Your task to perform on an android device: set the stopwatch Image 0: 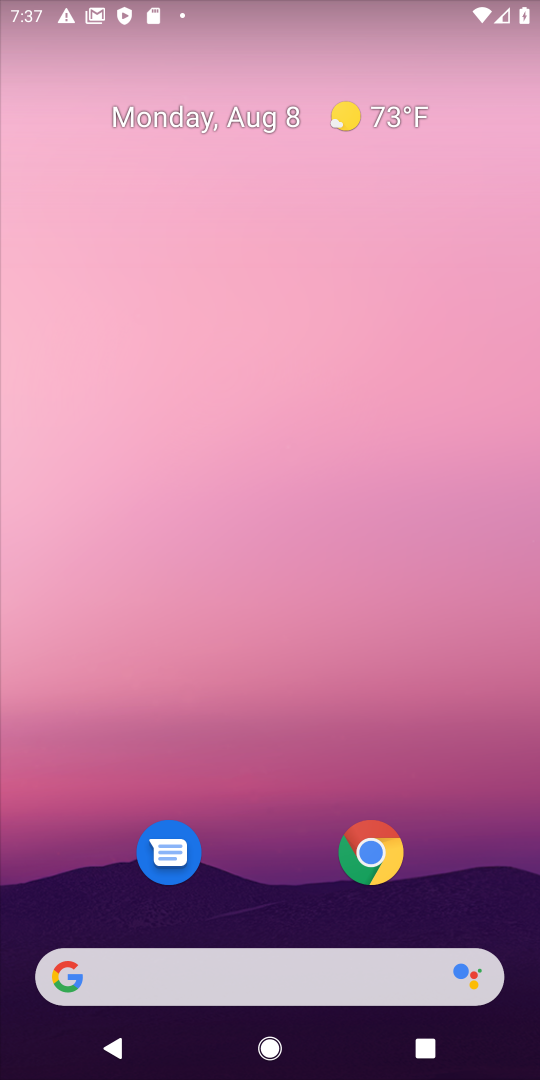
Step 0: drag from (126, 674) to (277, 214)
Your task to perform on an android device: set the stopwatch Image 1: 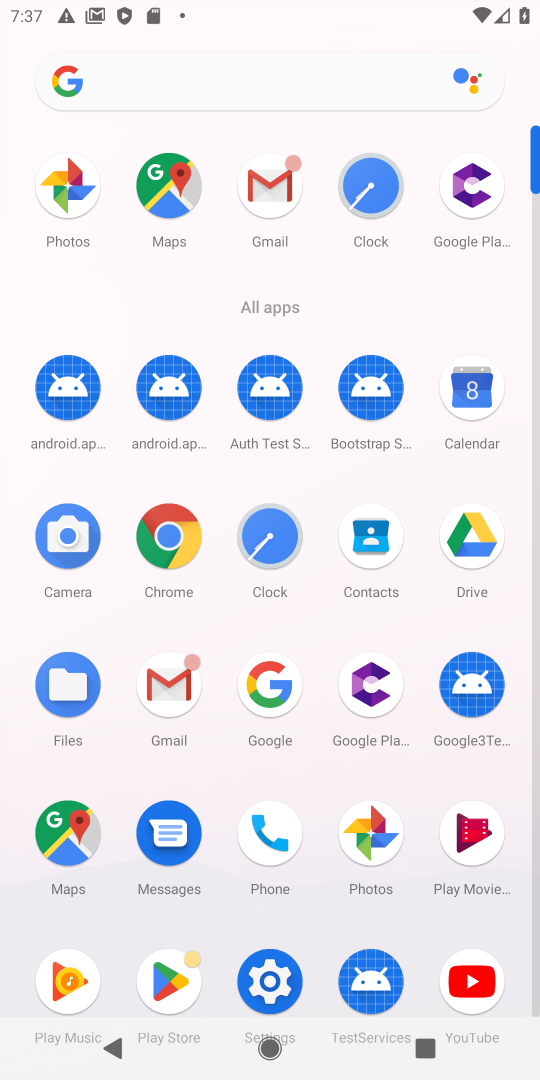
Step 1: click (357, 188)
Your task to perform on an android device: set the stopwatch Image 2: 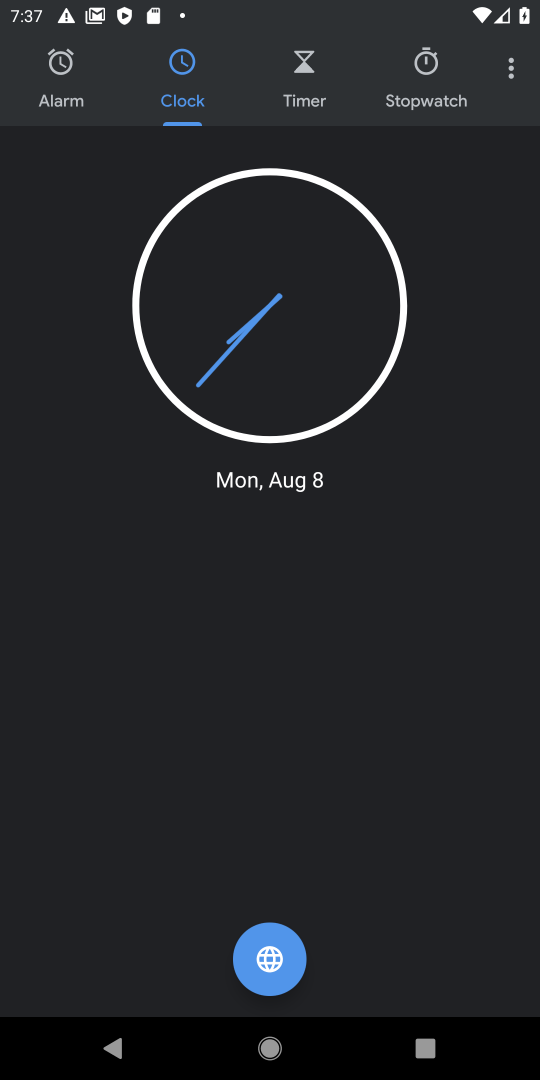
Step 2: click (399, 85)
Your task to perform on an android device: set the stopwatch Image 3: 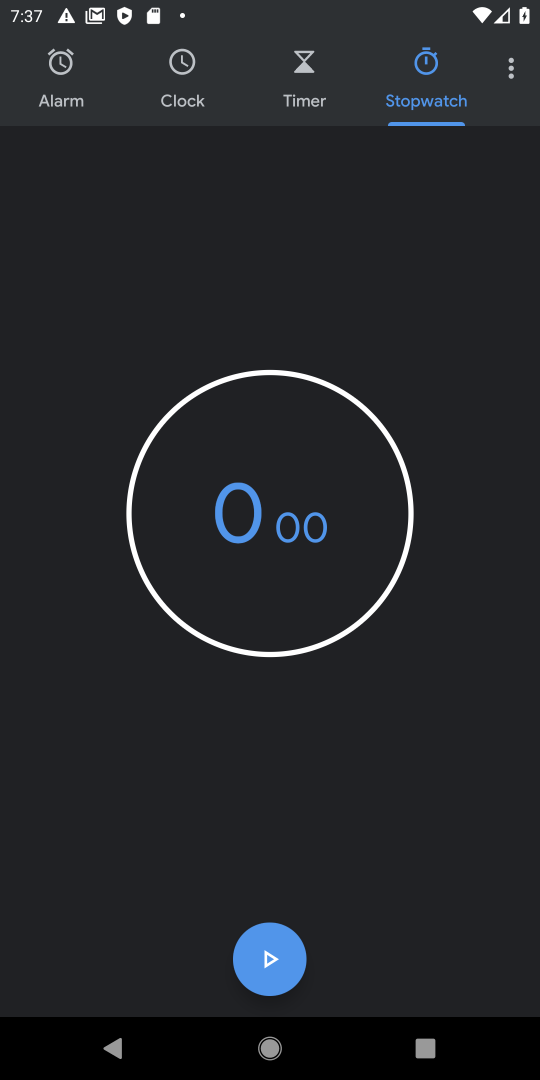
Step 3: click (257, 957)
Your task to perform on an android device: set the stopwatch Image 4: 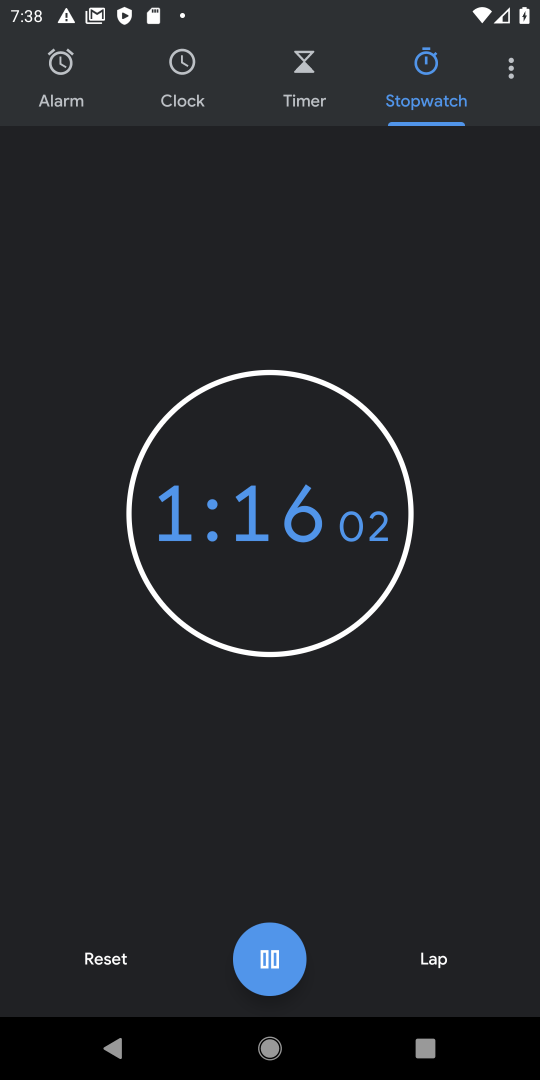
Step 4: task complete